Your task to perform on an android device: Go to Maps Image 0: 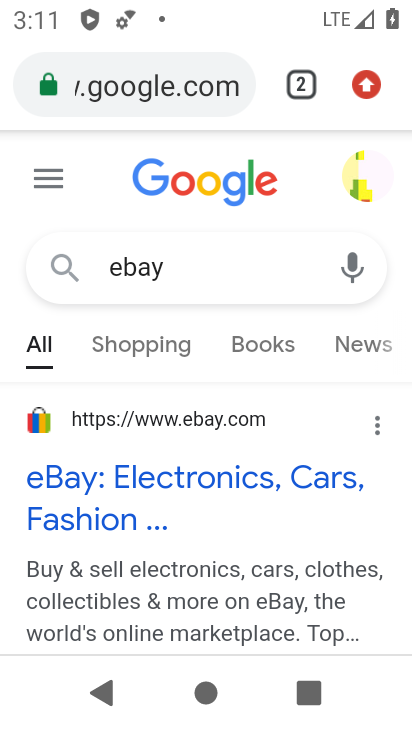
Step 0: press home button
Your task to perform on an android device: Go to Maps Image 1: 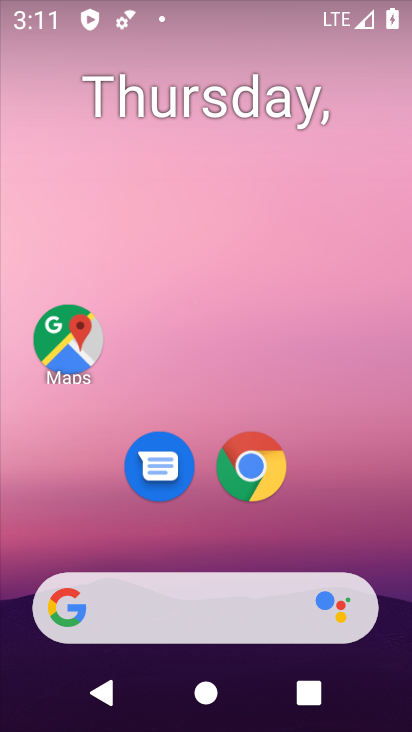
Step 1: click (69, 340)
Your task to perform on an android device: Go to Maps Image 2: 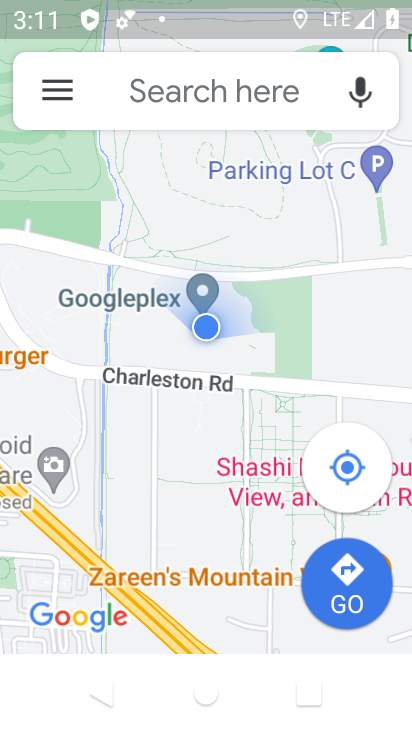
Step 2: task complete